Your task to perform on an android device: Open calendar and show me the third week of next month Image 0: 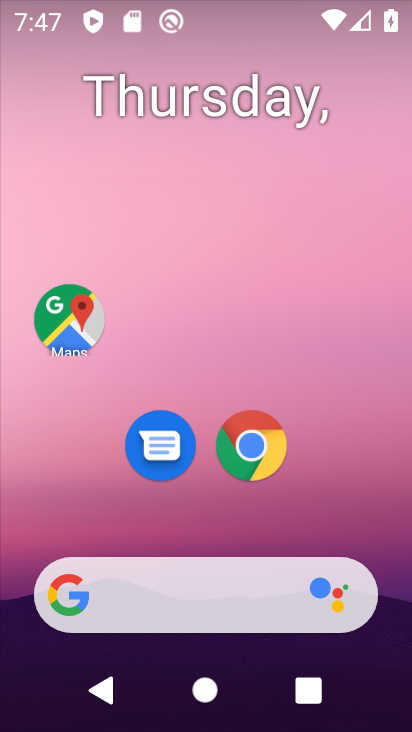
Step 0: click (286, 204)
Your task to perform on an android device: Open calendar and show me the third week of next month Image 1: 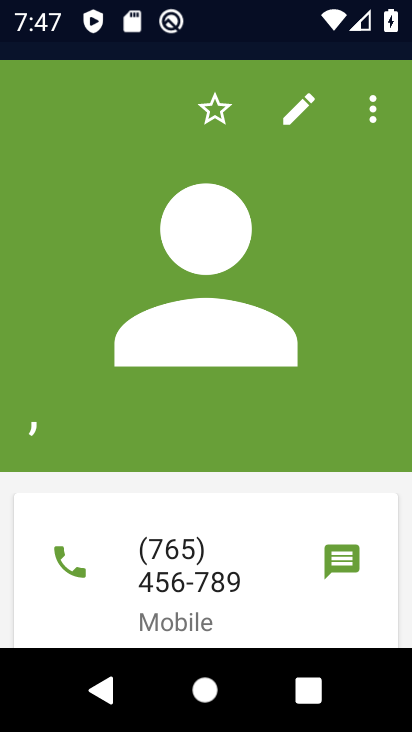
Step 1: drag from (201, 587) to (276, 217)
Your task to perform on an android device: Open calendar and show me the third week of next month Image 2: 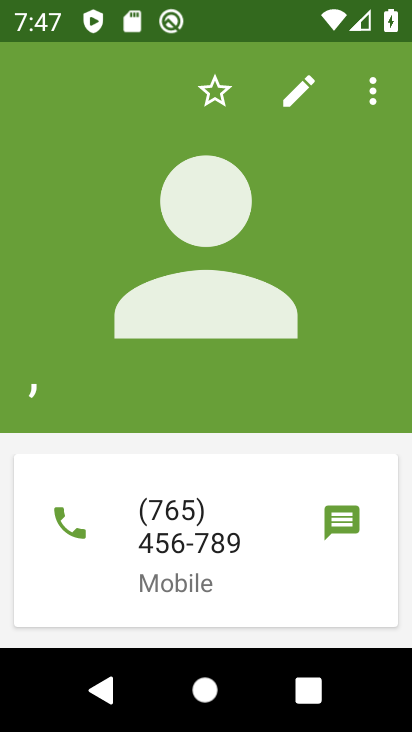
Step 2: press home button
Your task to perform on an android device: Open calendar and show me the third week of next month Image 3: 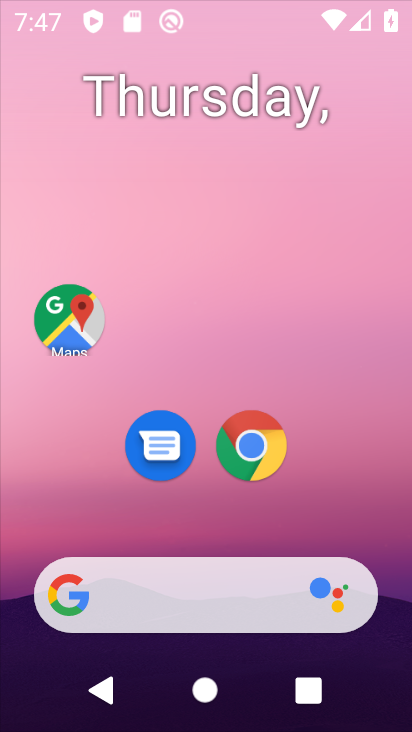
Step 3: drag from (202, 543) to (237, 135)
Your task to perform on an android device: Open calendar and show me the third week of next month Image 4: 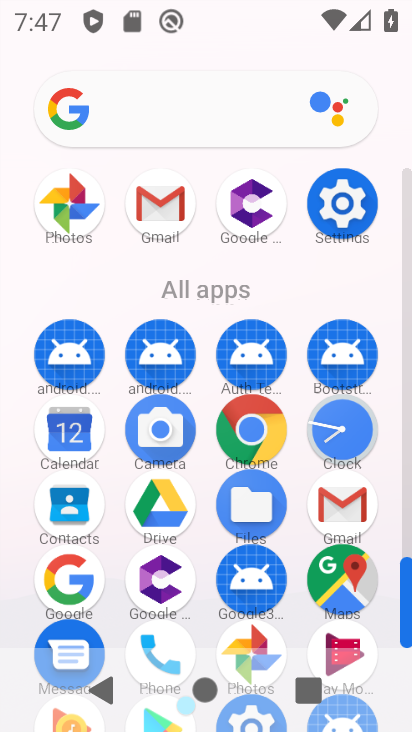
Step 4: drag from (200, 618) to (222, 121)
Your task to perform on an android device: Open calendar and show me the third week of next month Image 5: 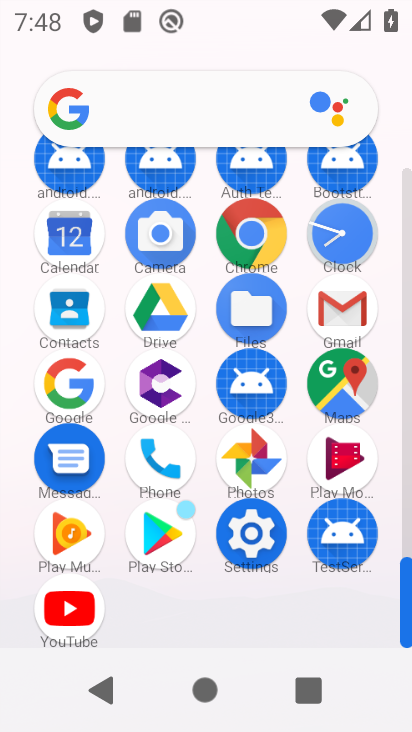
Step 5: click (63, 218)
Your task to perform on an android device: Open calendar and show me the third week of next month Image 6: 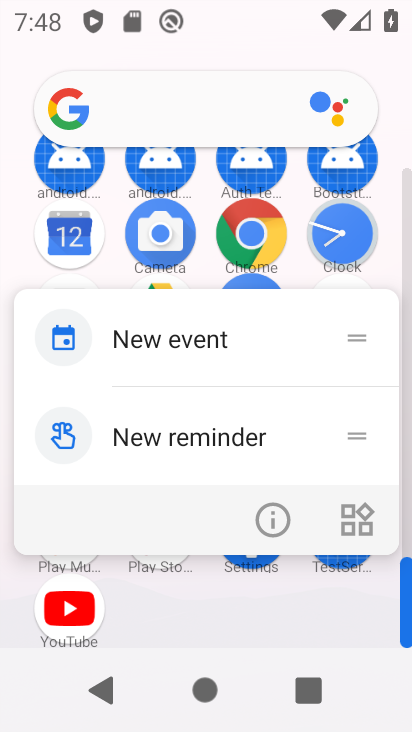
Step 6: click (268, 523)
Your task to perform on an android device: Open calendar and show me the third week of next month Image 7: 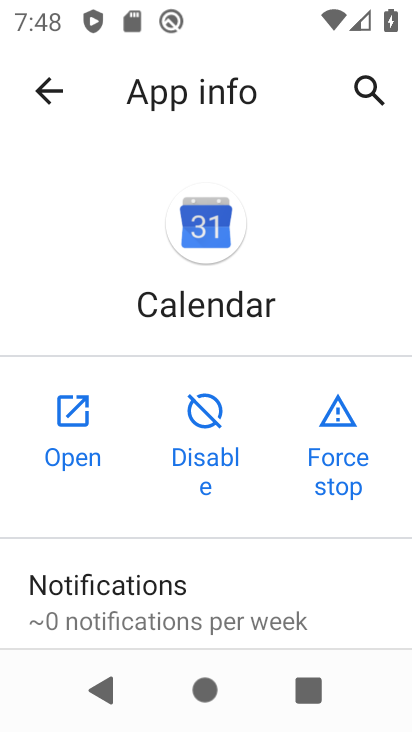
Step 7: click (93, 420)
Your task to perform on an android device: Open calendar and show me the third week of next month Image 8: 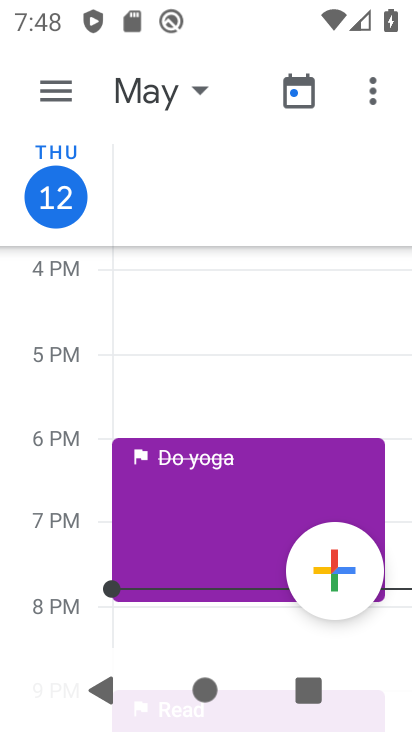
Step 8: drag from (226, 495) to (252, 334)
Your task to perform on an android device: Open calendar and show me the third week of next month Image 9: 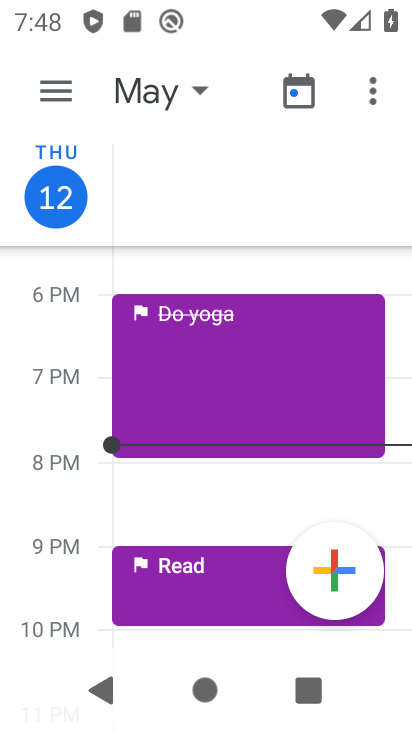
Step 9: click (146, 92)
Your task to perform on an android device: Open calendar and show me the third week of next month Image 10: 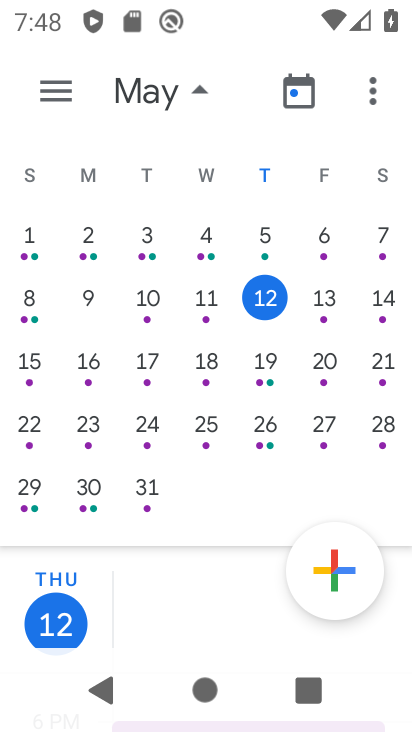
Step 10: drag from (341, 361) to (0, 331)
Your task to perform on an android device: Open calendar and show me the third week of next month Image 11: 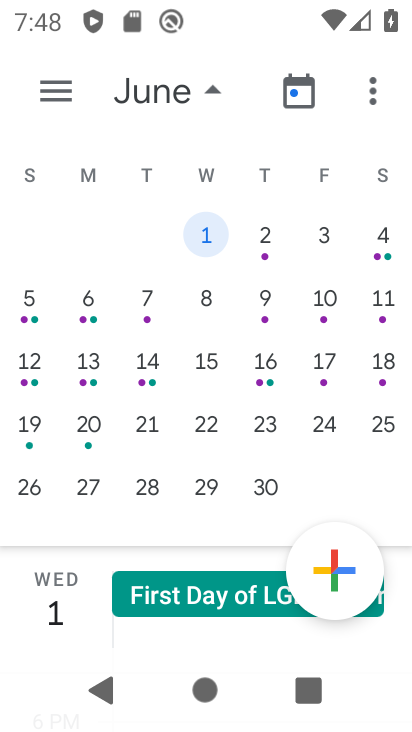
Step 11: click (196, 357)
Your task to perform on an android device: Open calendar and show me the third week of next month Image 12: 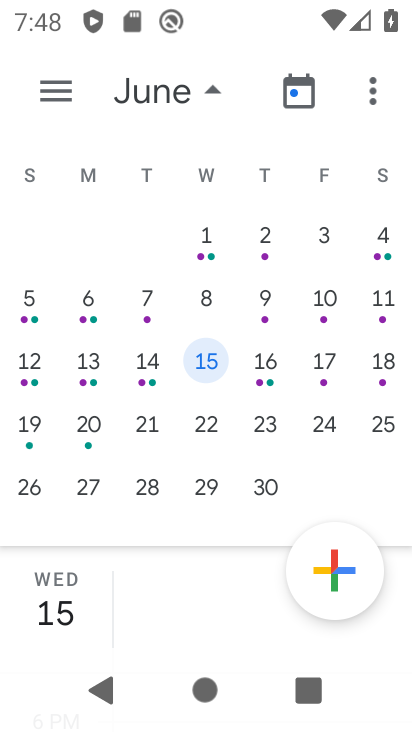
Step 12: click (268, 363)
Your task to perform on an android device: Open calendar and show me the third week of next month Image 13: 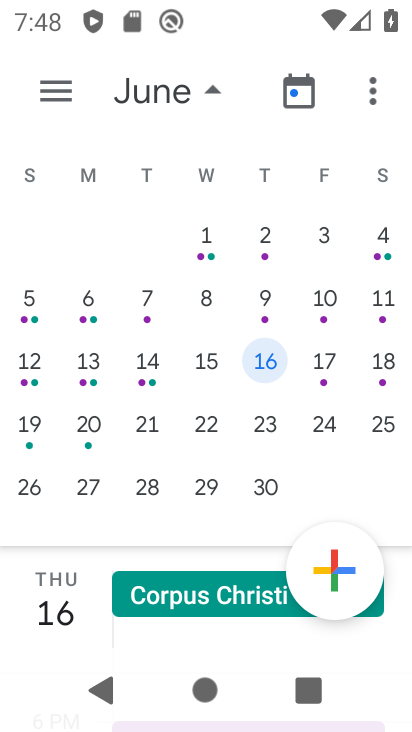
Step 13: task complete